Your task to perform on an android device: Clear the cart on walmart. Add apple airpods to the cart on walmart, then select checkout. Image 0: 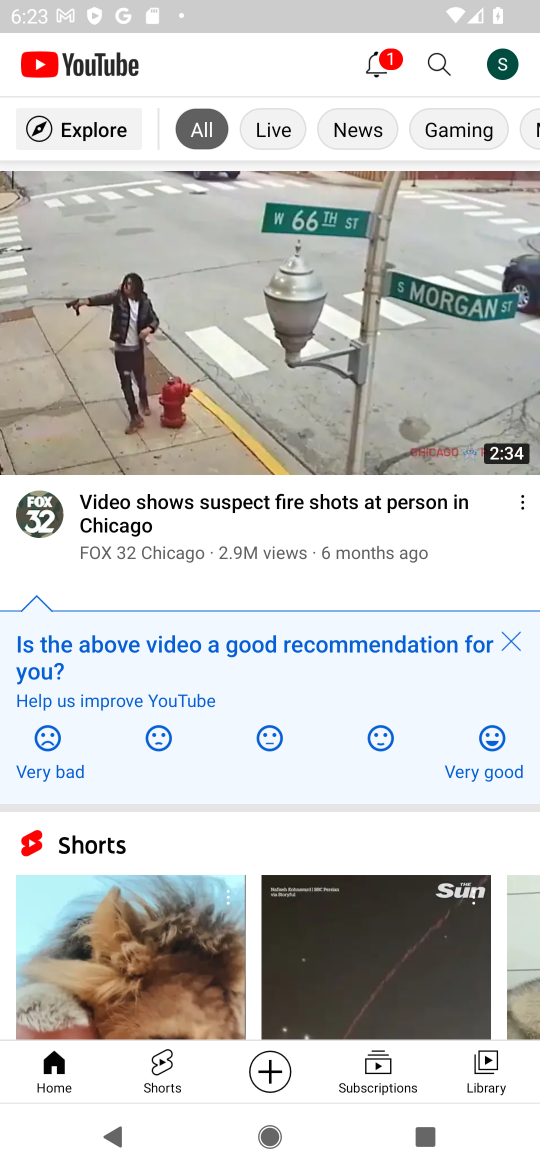
Step 0: press home button
Your task to perform on an android device: Clear the cart on walmart. Add apple airpods to the cart on walmart, then select checkout. Image 1: 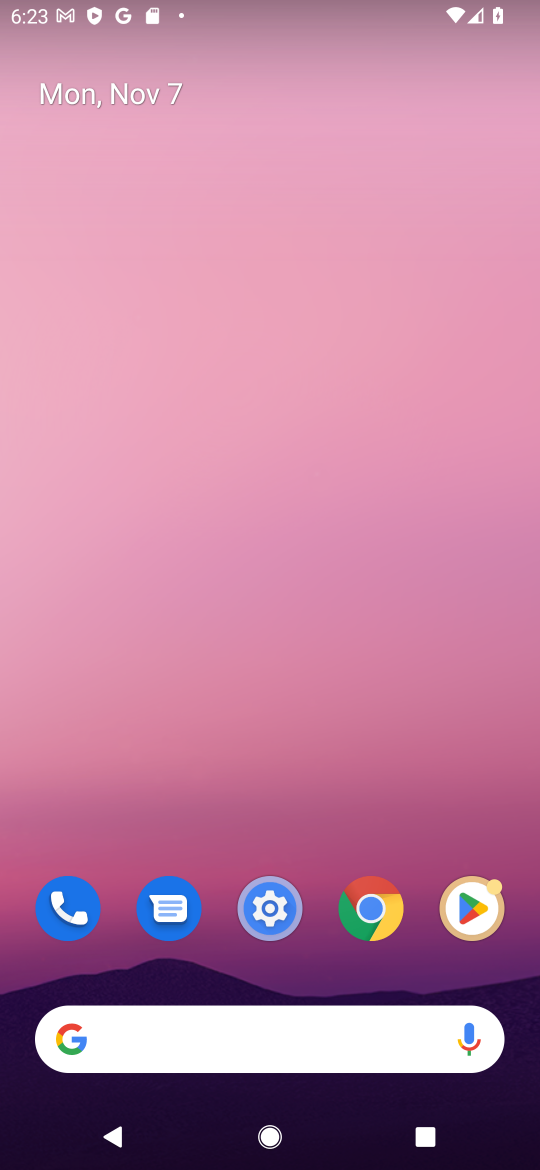
Step 1: click (388, 1044)
Your task to perform on an android device: Clear the cart on walmart. Add apple airpods to the cart on walmart, then select checkout. Image 2: 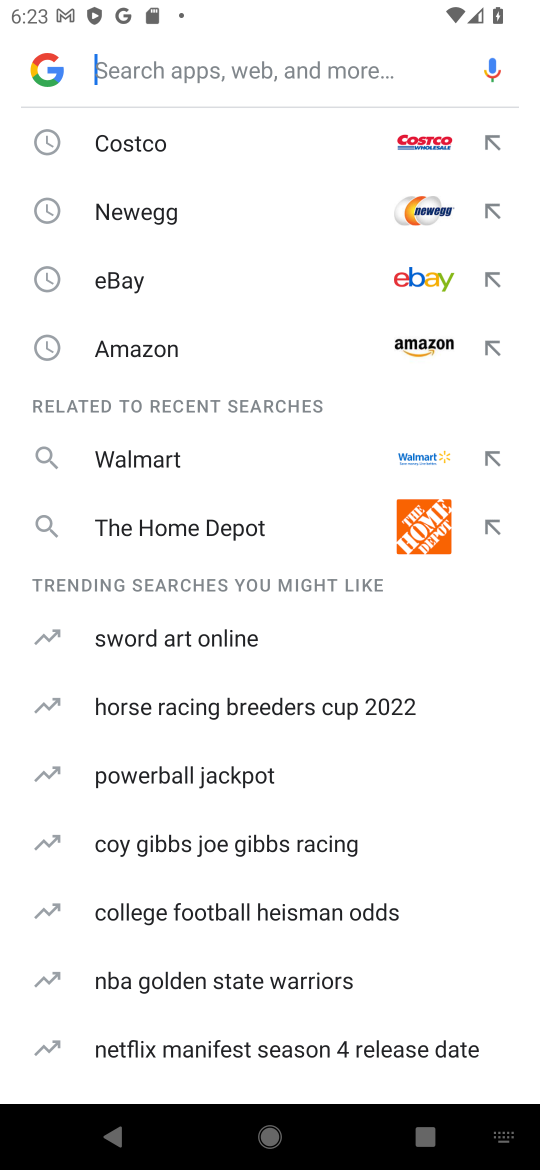
Step 2: click (388, 1044)
Your task to perform on an android device: Clear the cart on walmart. Add apple airpods to the cart on walmart, then select checkout. Image 3: 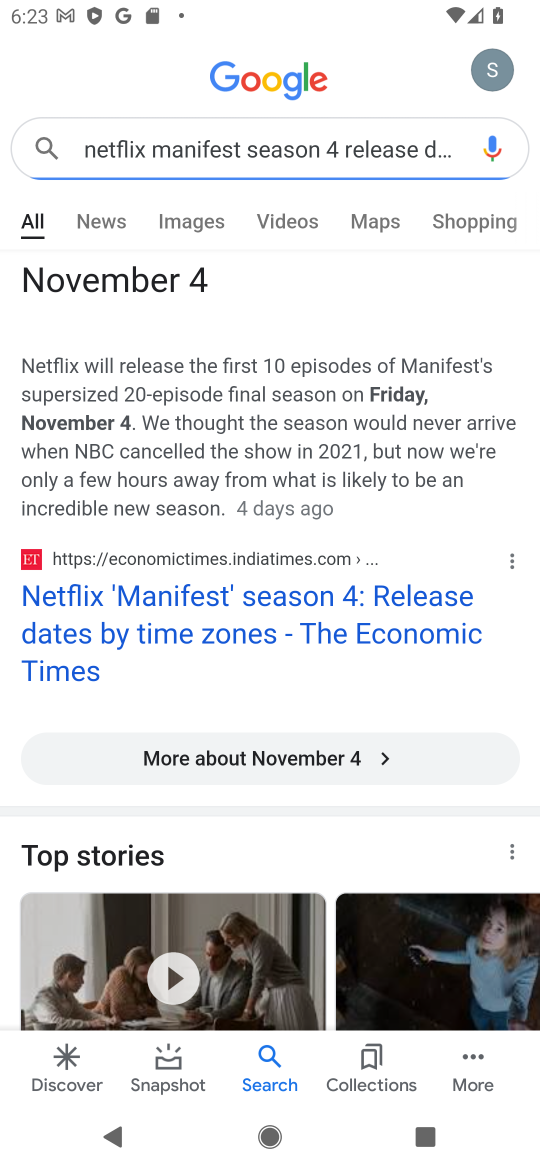
Step 3: task complete